Your task to perform on an android device: clear history in the chrome app Image 0: 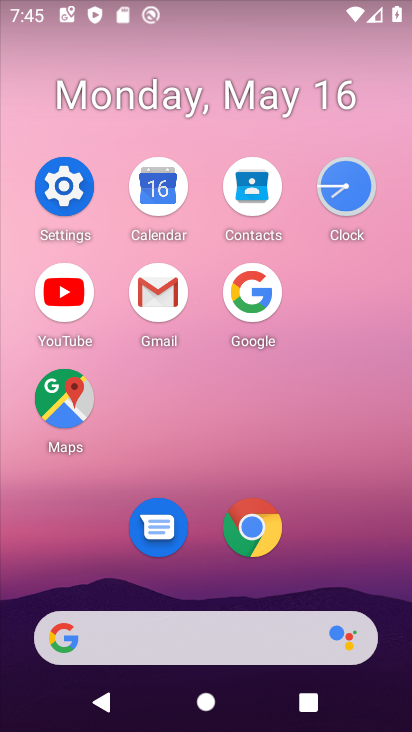
Step 0: click (233, 554)
Your task to perform on an android device: clear history in the chrome app Image 1: 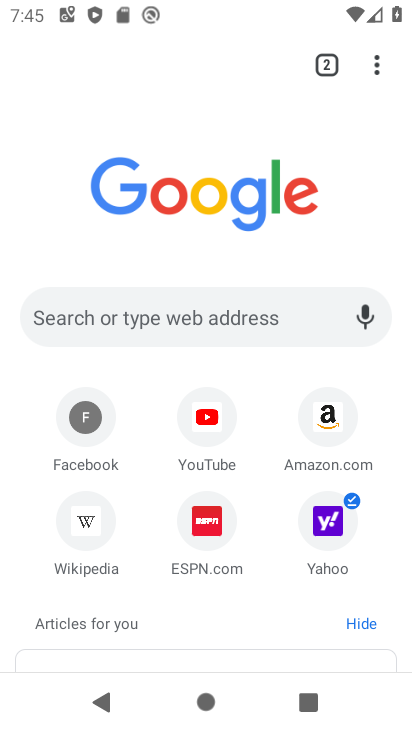
Step 1: click (372, 62)
Your task to perform on an android device: clear history in the chrome app Image 2: 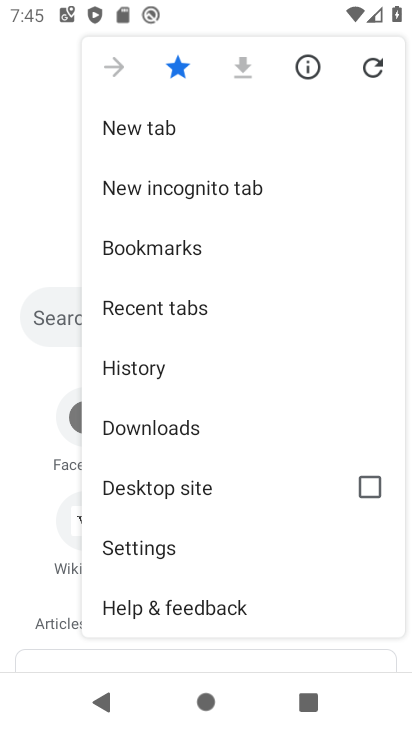
Step 2: click (161, 367)
Your task to perform on an android device: clear history in the chrome app Image 3: 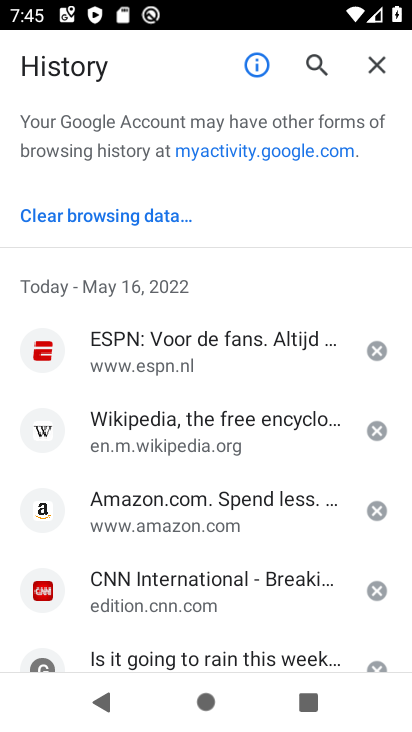
Step 3: click (140, 222)
Your task to perform on an android device: clear history in the chrome app Image 4: 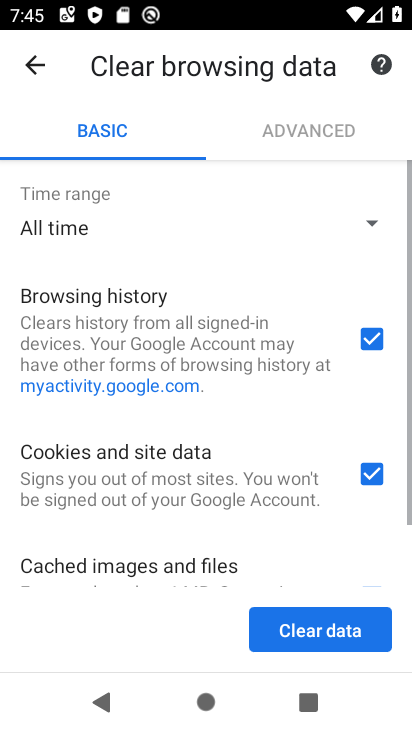
Step 4: click (357, 618)
Your task to perform on an android device: clear history in the chrome app Image 5: 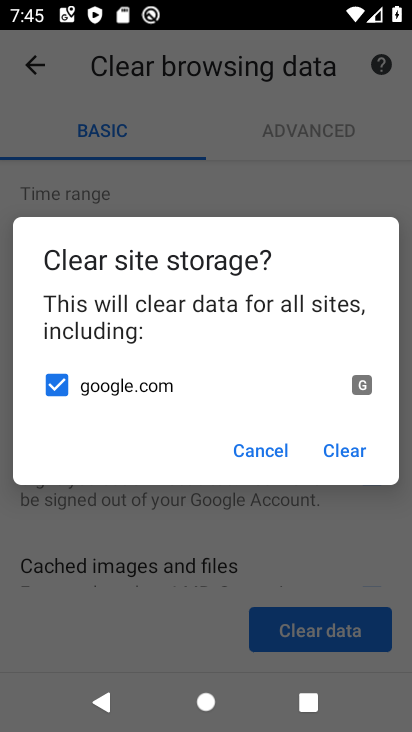
Step 5: click (332, 463)
Your task to perform on an android device: clear history in the chrome app Image 6: 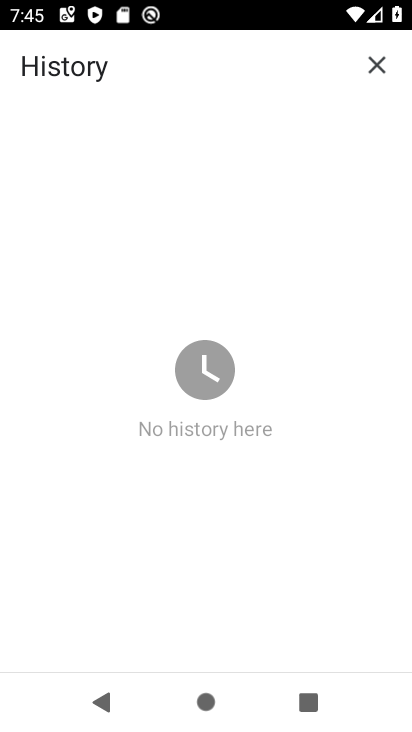
Step 6: task complete